Your task to perform on an android device: Open accessibility settings Image 0: 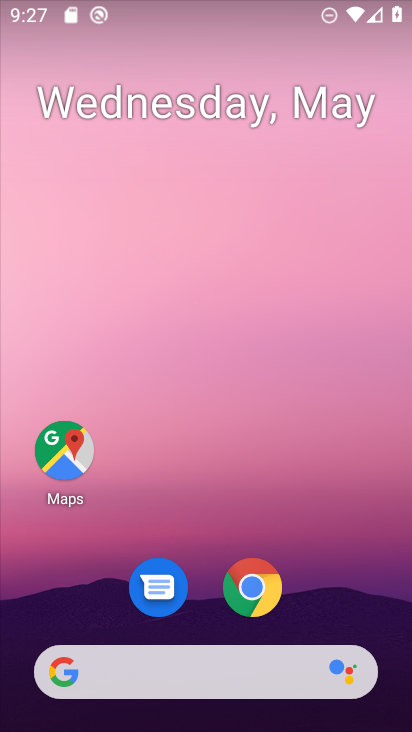
Step 0: drag from (217, 727) to (216, 121)
Your task to perform on an android device: Open accessibility settings Image 1: 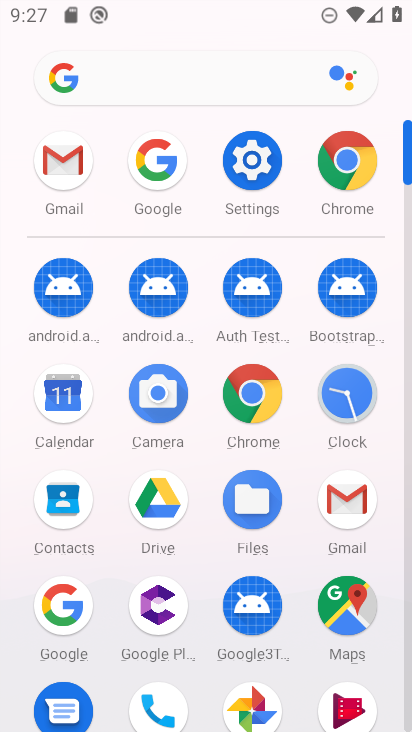
Step 1: click (249, 151)
Your task to perform on an android device: Open accessibility settings Image 2: 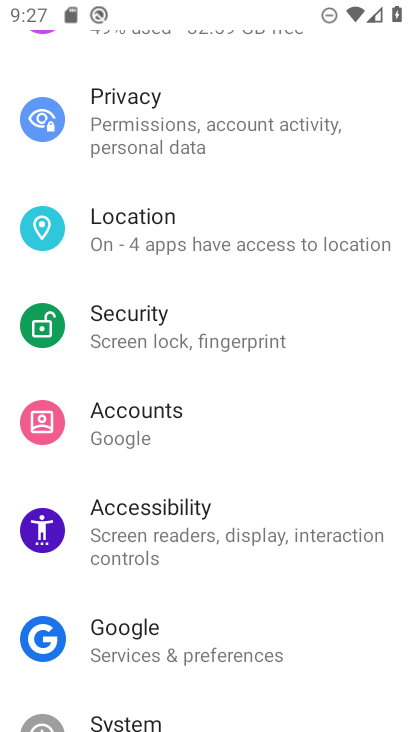
Step 2: click (133, 525)
Your task to perform on an android device: Open accessibility settings Image 3: 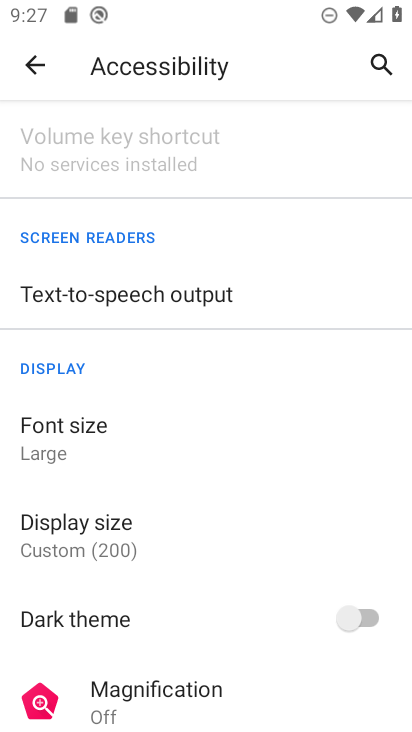
Step 3: task complete